Your task to perform on an android device: move an email to a new category in the gmail app Image 0: 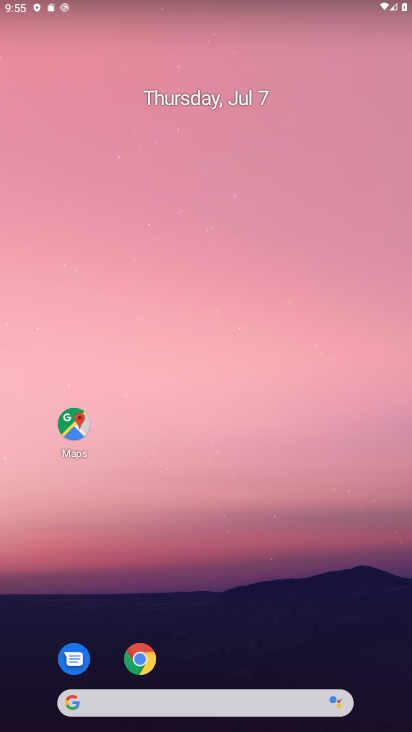
Step 0: drag from (186, 698) to (220, 9)
Your task to perform on an android device: move an email to a new category in the gmail app Image 1: 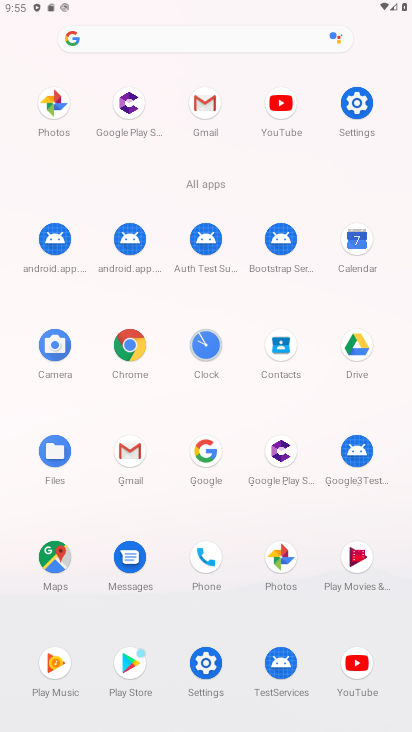
Step 1: click (127, 460)
Your task to perform on an android device: move an email to a new category in the gmail app Image 2: 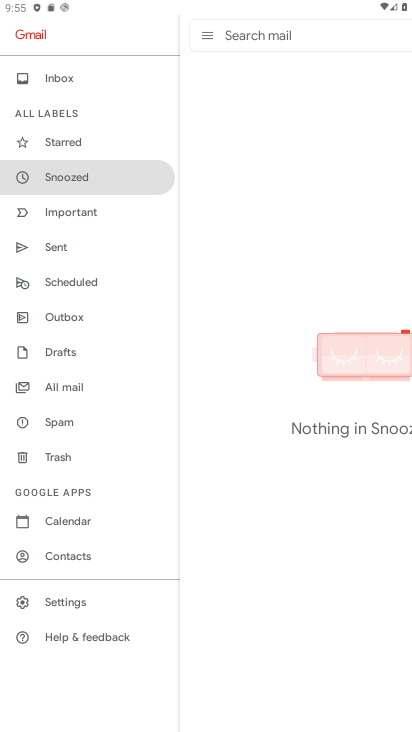
Step 2: click (78, 393)
Your task to perform on an android device: move an email to a new category in the gmail app Image 3: 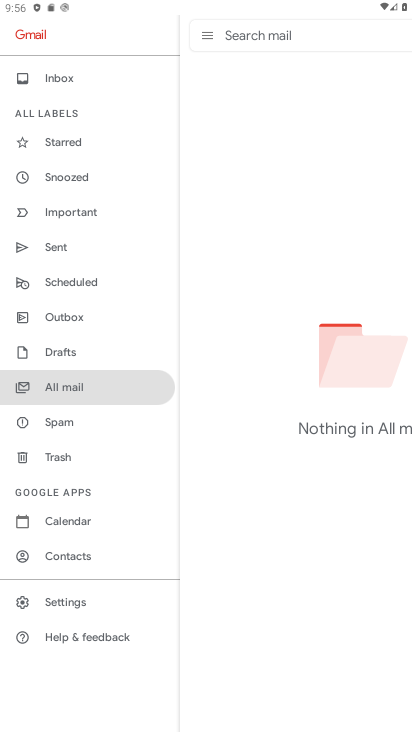
Step 3: task complete